Your task to perform on an android device: read, delete, or share a saved page in the chrome app Image 0: 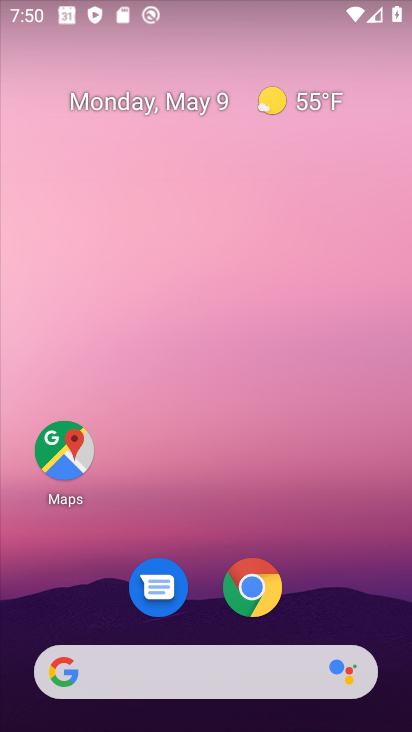
Step 0: click (271, 573)
Your task to perform on an android device: read, delete, or share a saved page in the chrome app Image 1: 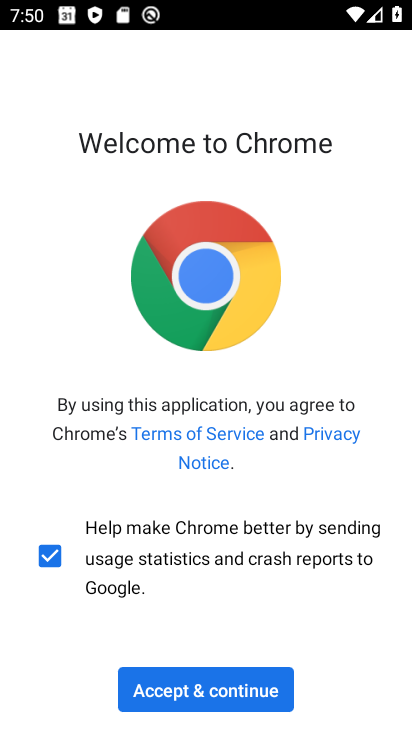
Step 1: click (212, 704)
Your task to perform on an android device: read, delete, or share a saved page in the chrome app Image 2: 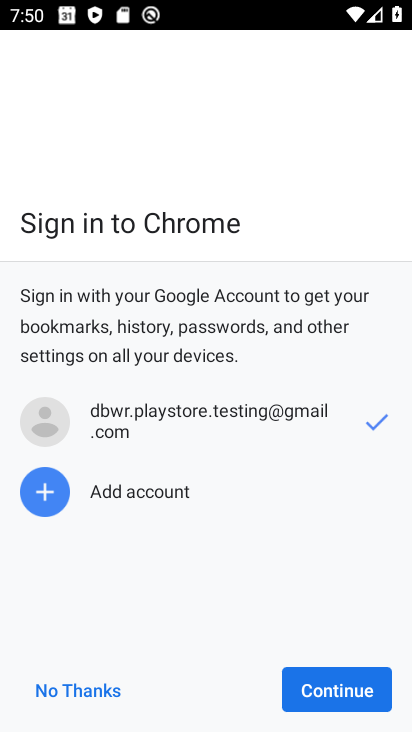
Step 2: click (291, 688)
Your task to perform on an android device: read, delete, or share a saved page in the chrome app Image 3: 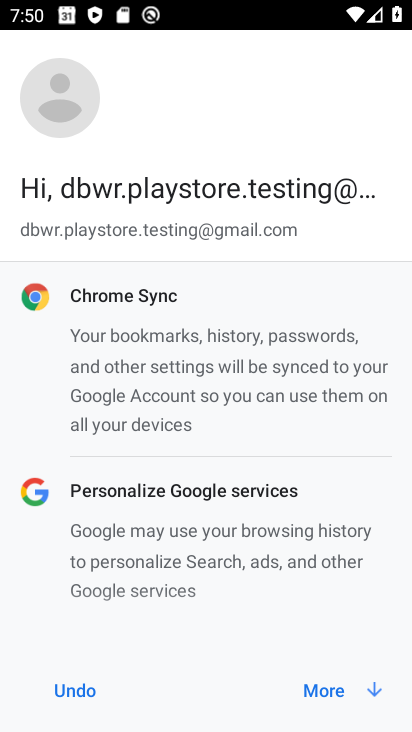
Step 3: click (311, 692)
Your task to perform on an android device: read, delete, or share a saved page in the chrome app Image 4: 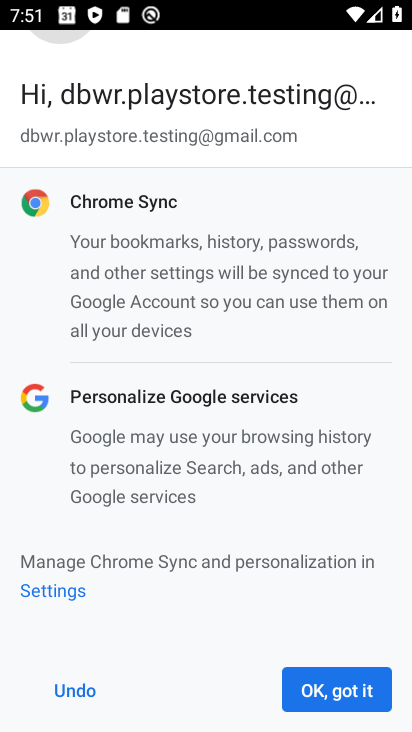
Step 4: click (321, 697)
Your task to perform on an android device: read, delete, or share a saved page in the chrome app Image 5: 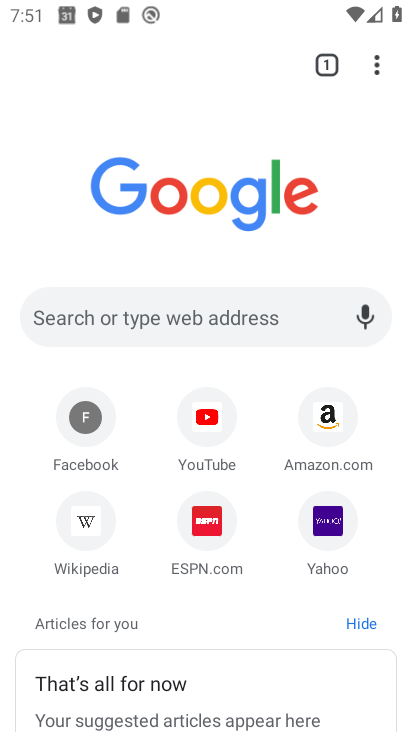
Step 5: click (378, 63)
Your task to perform on an android device: read, delete, or share a saved page in the chrome app Image 6: 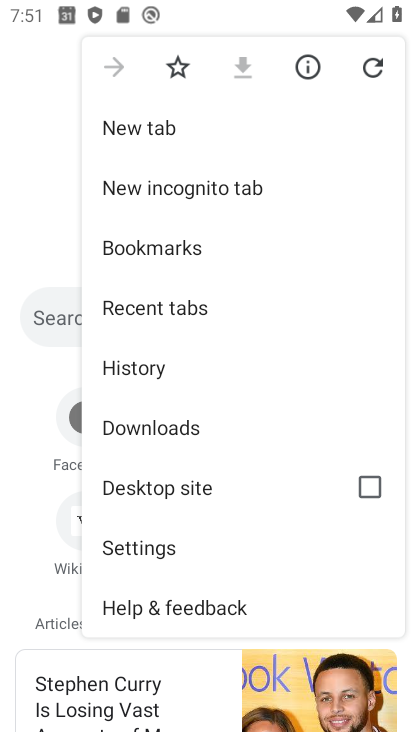
Step 6: drag from (165, 369) to (165, 176)
Your task to perform on an android device: read, delete, or share a saved page in the chrome app Image 7: 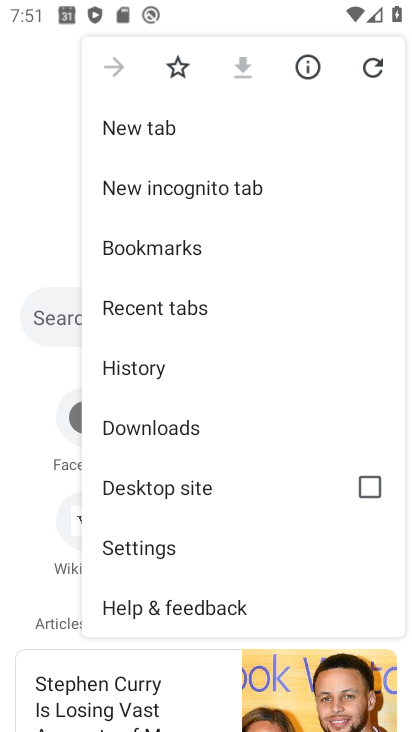
Step 7: click (158, 429)
Your task to perform on an android device: read, delete, or share a saved page in the chrome app Image 8: 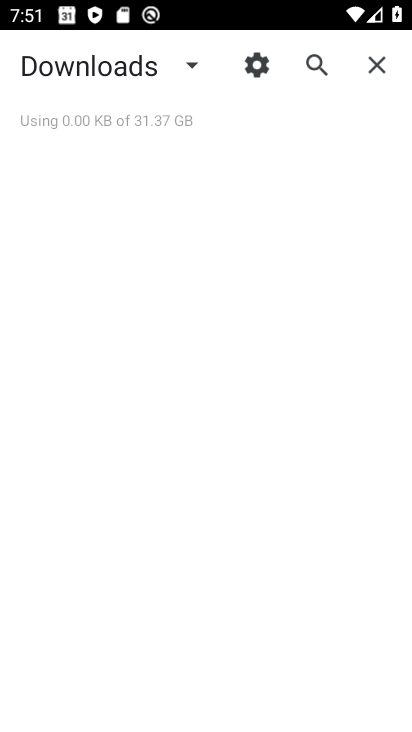
Step 8: task complete